Your task to perform on an android device: open wifi settings Image 0: 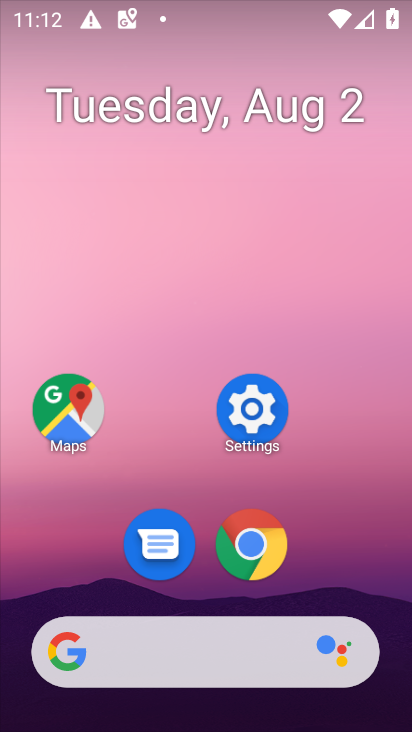
Step 0: press home button
Your task to perform on an android device: open wifi settings Image 1: 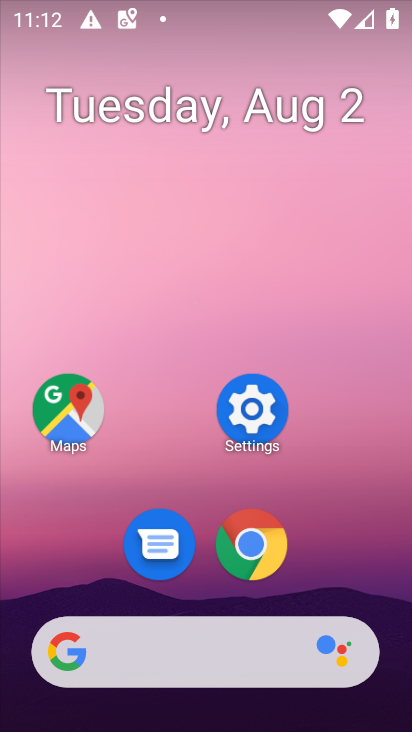
Step 1: click (246, 413)
Your task to perform on an android device: open wifi settings Image 2: 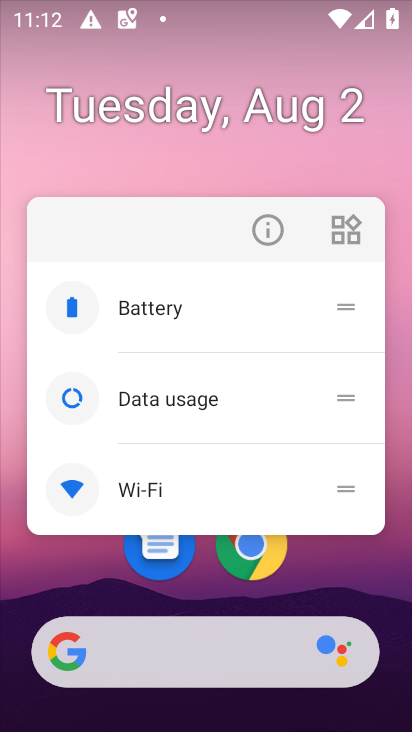
Step 2: click (385, 579)
Your task to perform on an android device: open wifi settings Image 3: 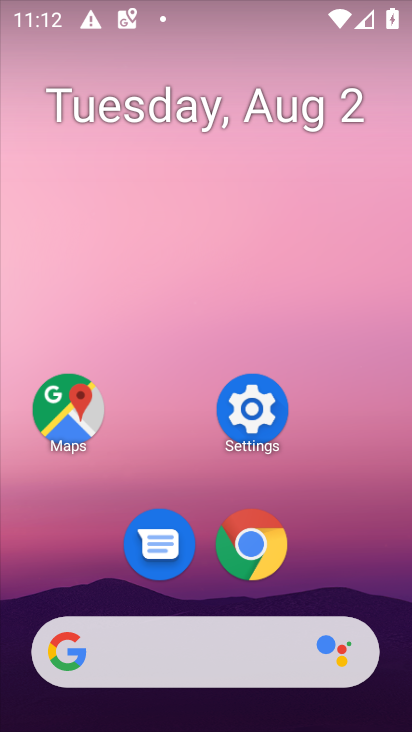
Step 3: click (256, 402)
Your task to perform on an android device: open wifi settings Image 4: 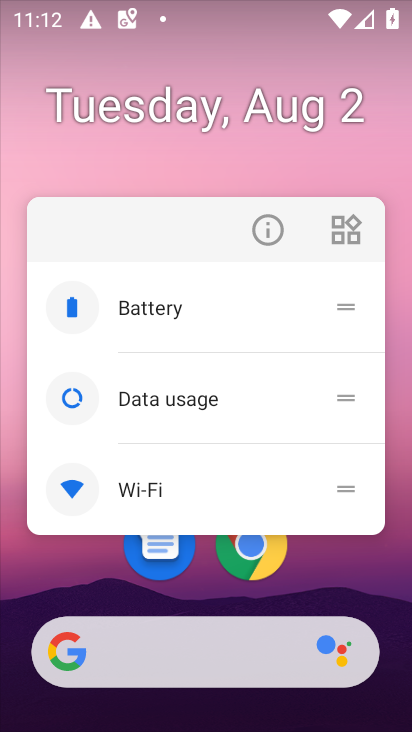
Step 4: click (391, 553)
Your task to perform on an android device: open wifi settings Image 5: 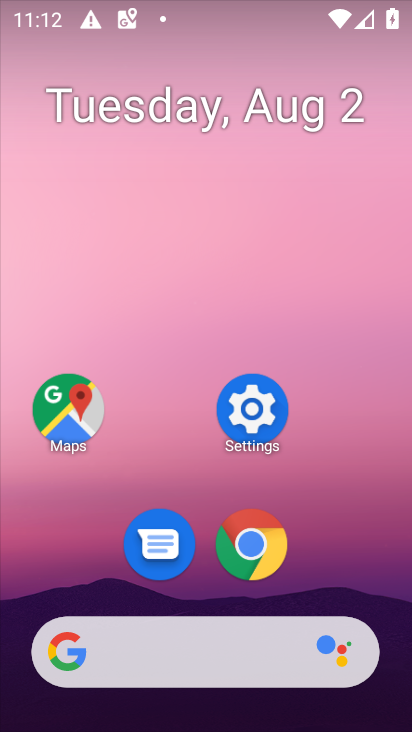
Step 5: click (250, 409)
Your task to perform on an android device: open wifi settings Image 6: 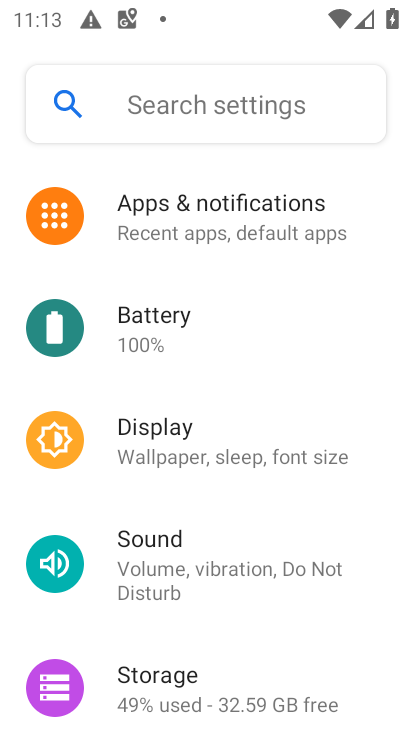
Step 6: drag from (344, 182) to (285, 644)
Your task to perform on an android device: open wifi settings Image 7: 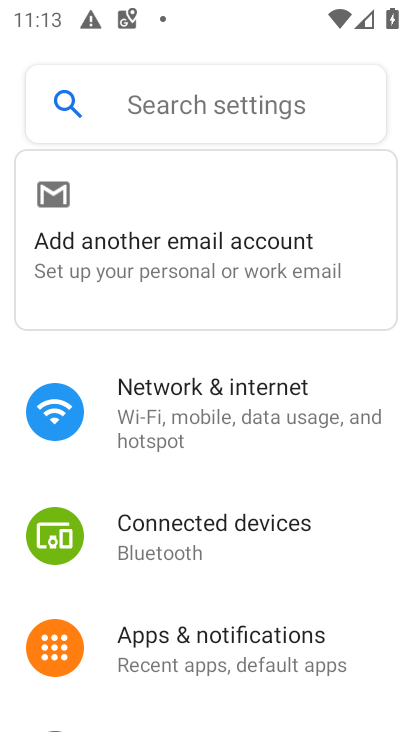
Step 7: click (225, 406)
Your task to perform on an android device: open wifi settings Image 8: 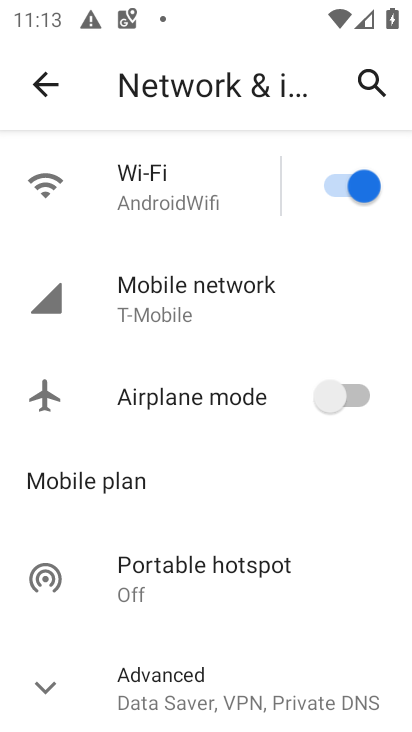
Step 8: click (143, 200)
Your task to perform on an android device: open wifi settings Image 9: 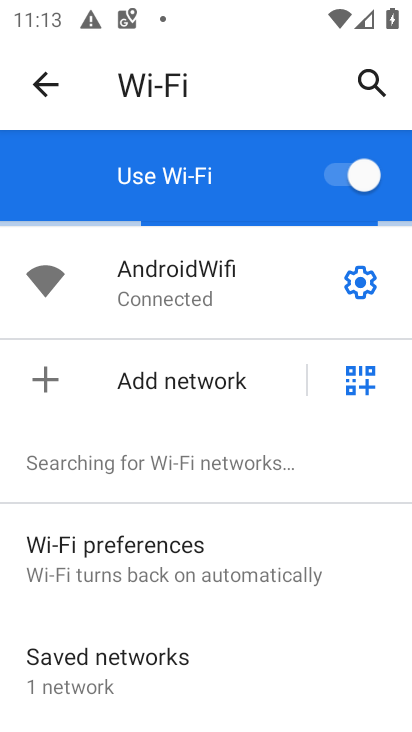
Step 9: task complete